Your task to perform on an android device: Open display settings Image 0: 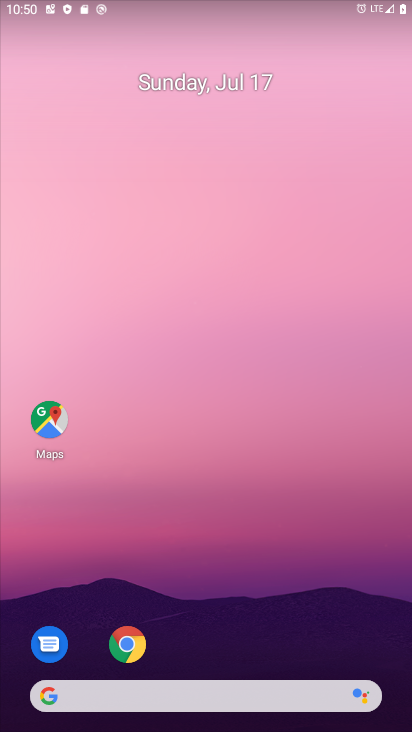
Step 0: drag from (289, 577) to (244, 0)
Your task to perform on an android device: Open display settings Image 1: 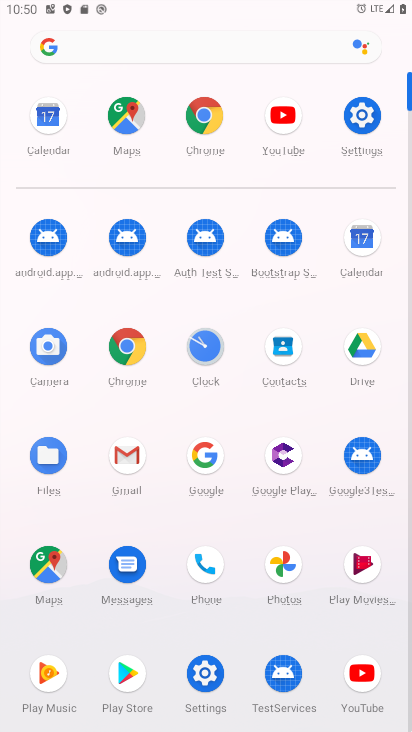
Step 1: click (361, 121)
Your task to perform on an android device: Open display settings Image 2: 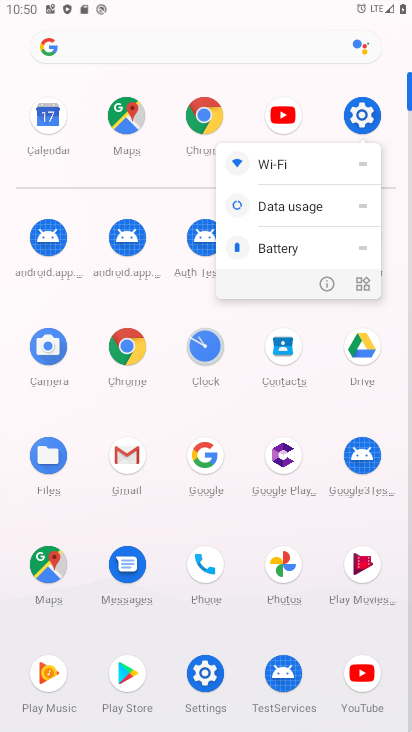
Step 2: click (355, 115)
Your task to perform on an android device: Open display settings Image 3: 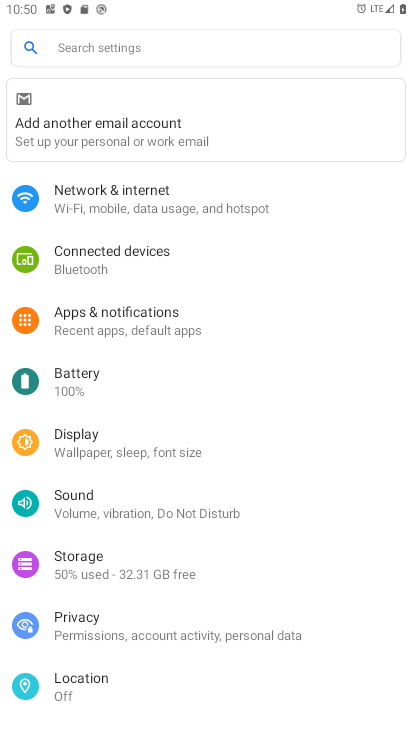
Step 3: click (103, 447)
Your task to perform on an android device: Open display settings Image 4: 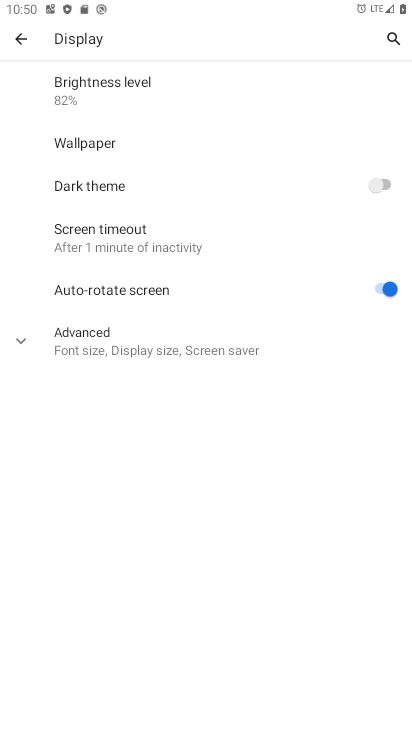
Step 4: task complete